Your task to perform on an android device: open the mobile data screen to see how much data has been used Image 0: 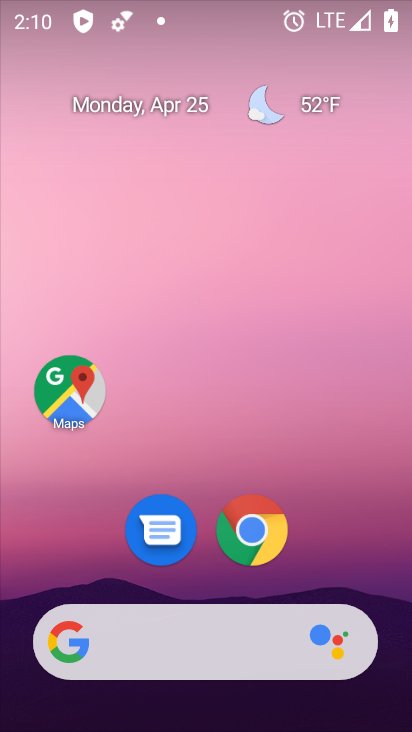
Step 0: drag from (334, 440) to (369, 124)
Your task to perform on an android device: open the mobile data screen to see how much data has been used Image 1: 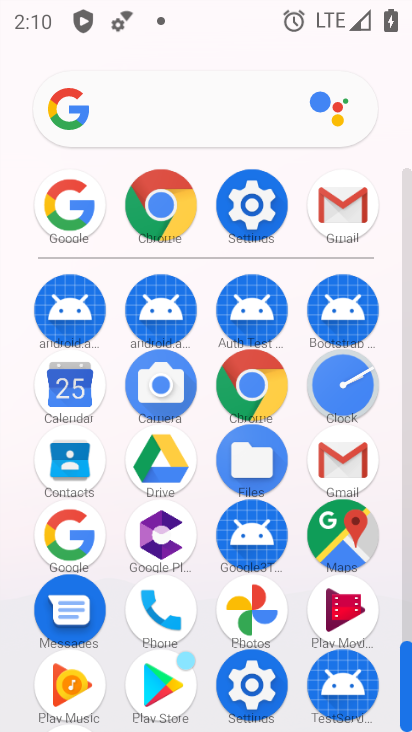
Step 1: click (249, 219)
Your task to perform on an android device: open the mobile data screen to see how much data has been used Image 2: 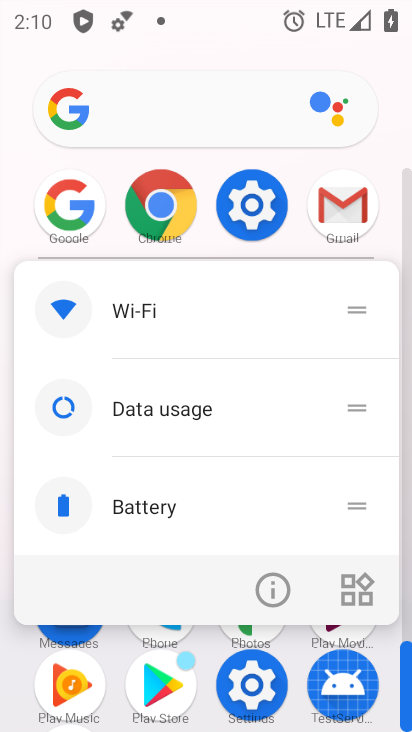
Step 2: click (249, 220)
Your task to perform on an android device: open the mobile data screen to see how much data has been used Image 3: 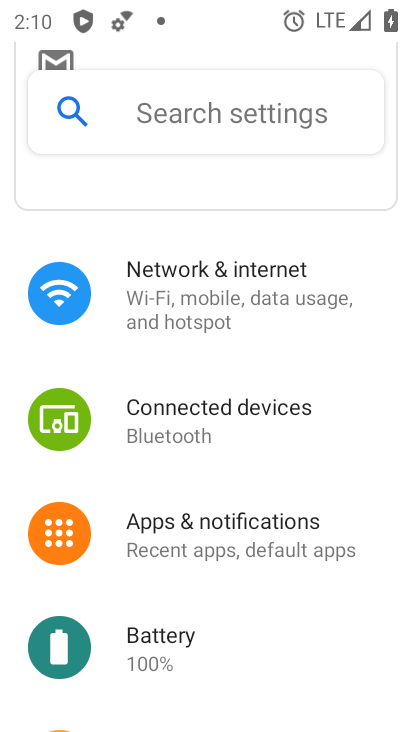
Step 3: drag from (337, 265) to (349, 487)
Your task to perform on an android device: open the mobile data screen to see how much data has been used Image 4: 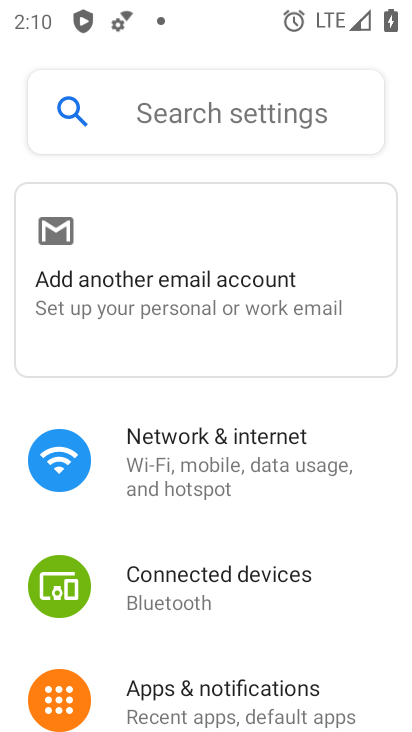
Step 4: click (303, 468)
Your task to perform on an android device: open the mobile data screen to see how much data has been used Image 5: 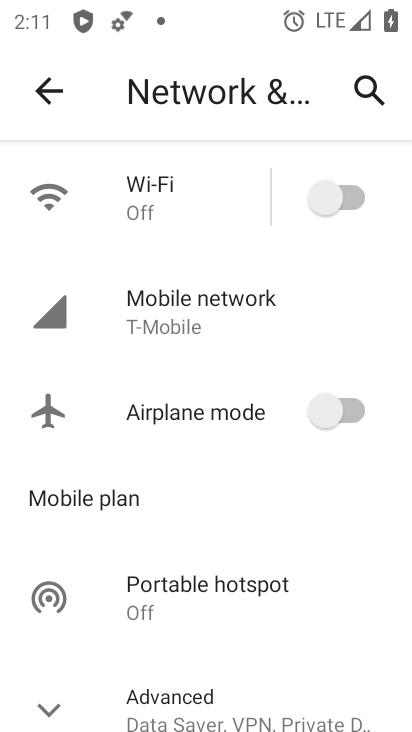
Step 5: click (234, 316)
Your task to perform on an android device: open the mobile data screen to see how much data has been used Image 6: 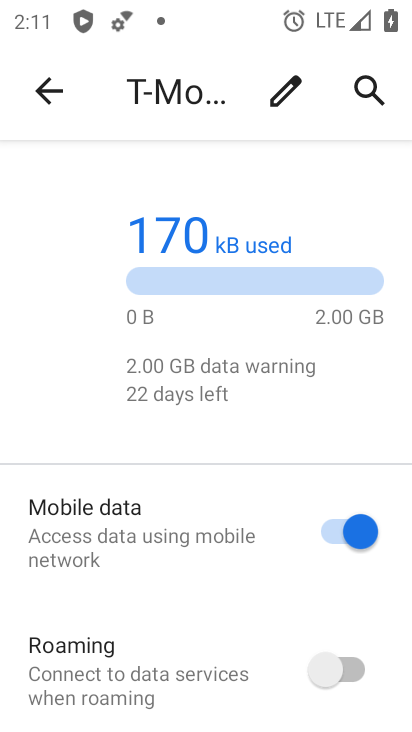
Step 6: click (204, 390)
Your task to perform on an android device: open the mobile data screen to see how much data has been used Image 7: 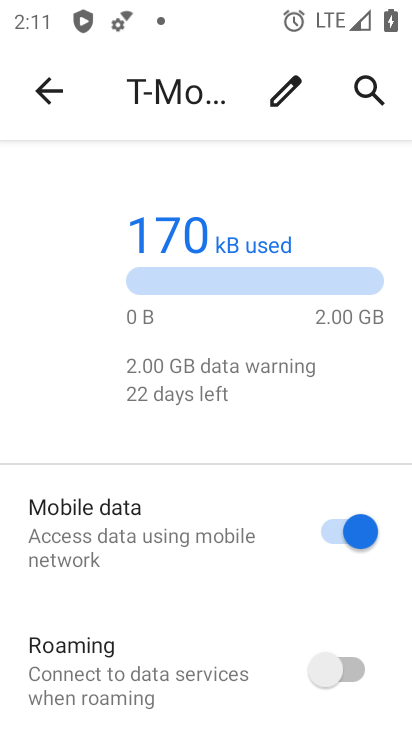
Step 7: task complete